Your task to perform on an android device: Do I have any events today? Image 0: 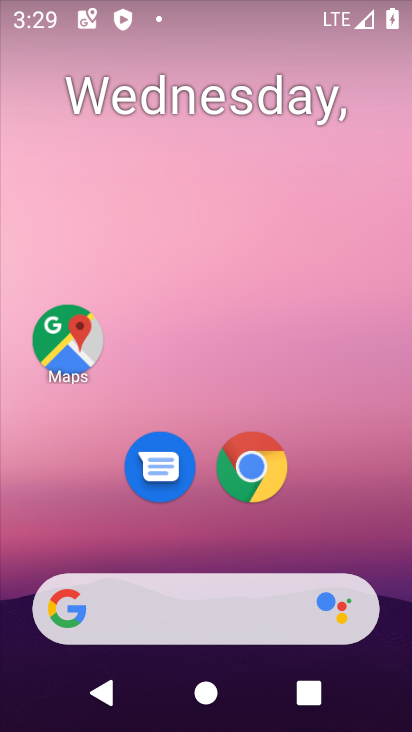
Step 0: drag from (394, 589) to (334, 112)
Your task to perform on an android device: Do I have any events today? Image 1: 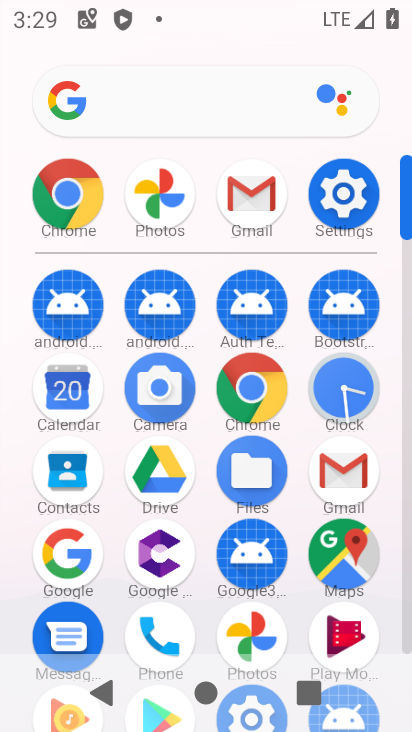
Step 1: click (405, 640)
Your task to perform on an android device: Do I have any events today? Image 2: 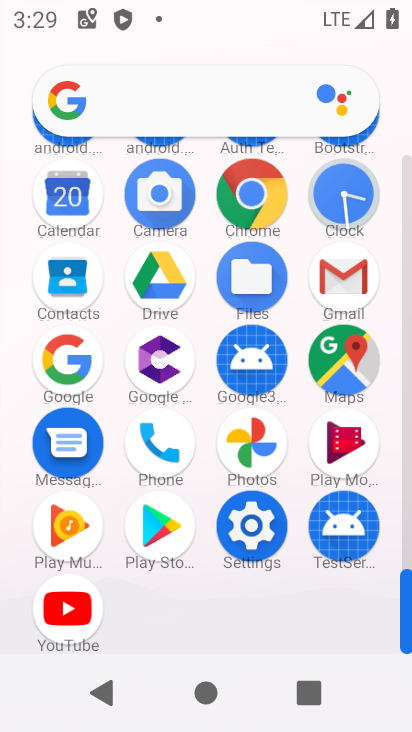
Step 2: click (64, 194)
Your task to perform on an android device: Do I have any events today? Image 3: 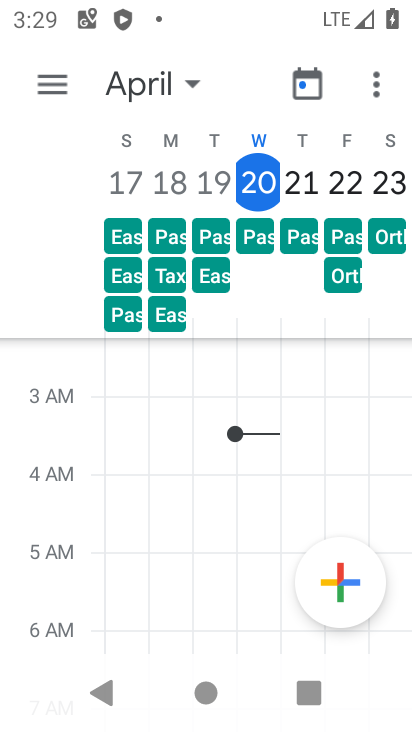
Step 3: click (56, 86)
Your task to perform on an android device: Do I have any events today? Image 4: 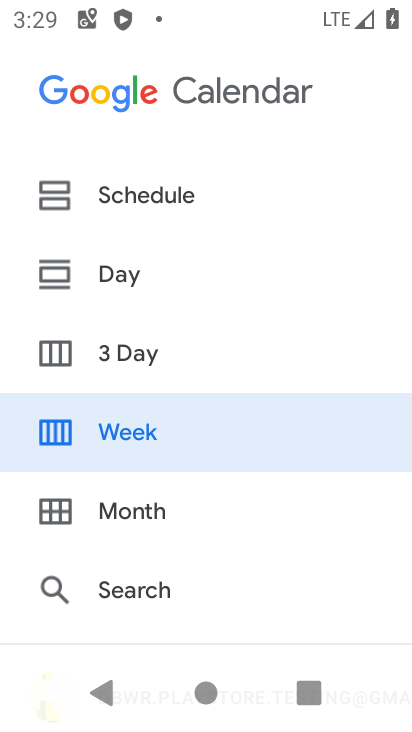
Step 4: click (113, 277)
Your task to perform on an android device: Do I have any events today? Image 5: 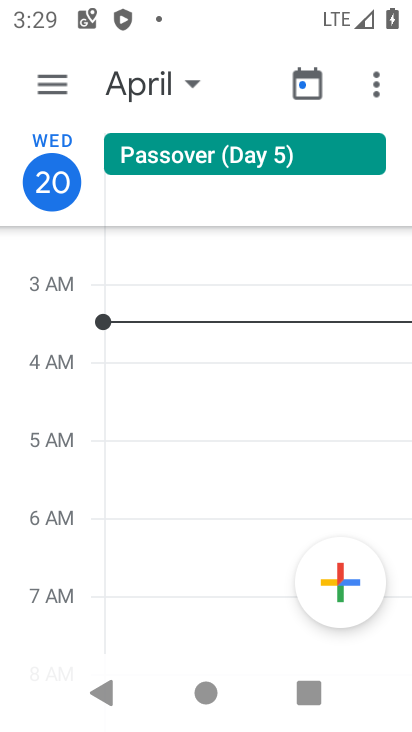
Step 5: task complete